Your task to perform on an android device: turn on sleep mode Image 0: 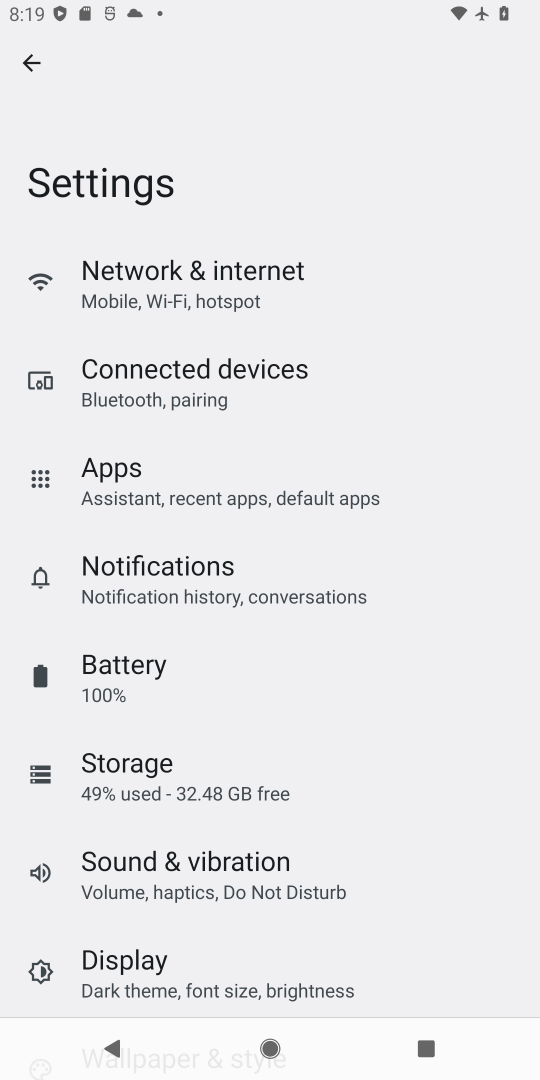
Step 0: click (151, 958)
Your task to perform on an android device: turn on sleep mode Image 1: 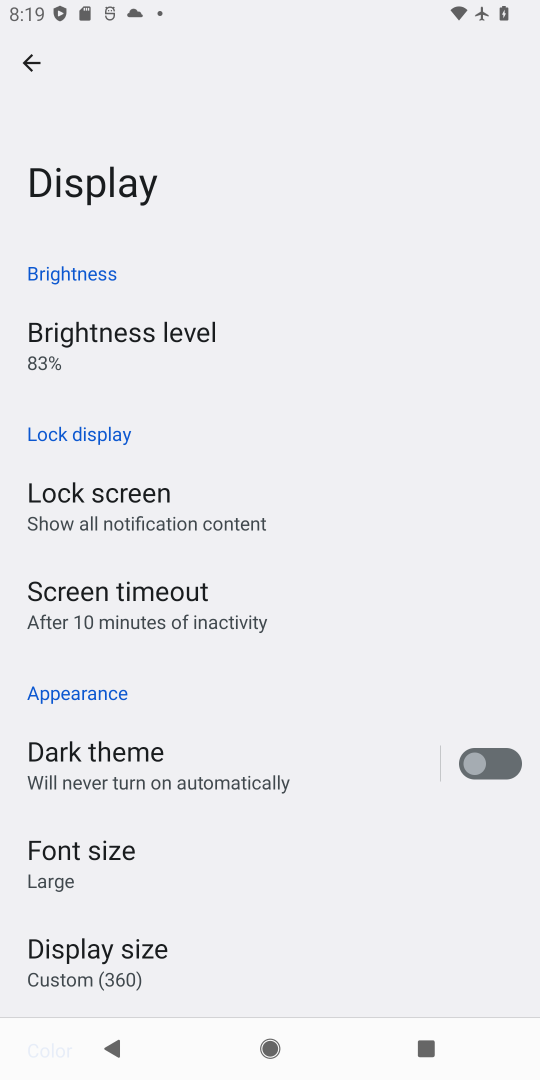
Step 1: click (271, 587)
Your task to perform on an android device: turn on sleep mode Image 2: 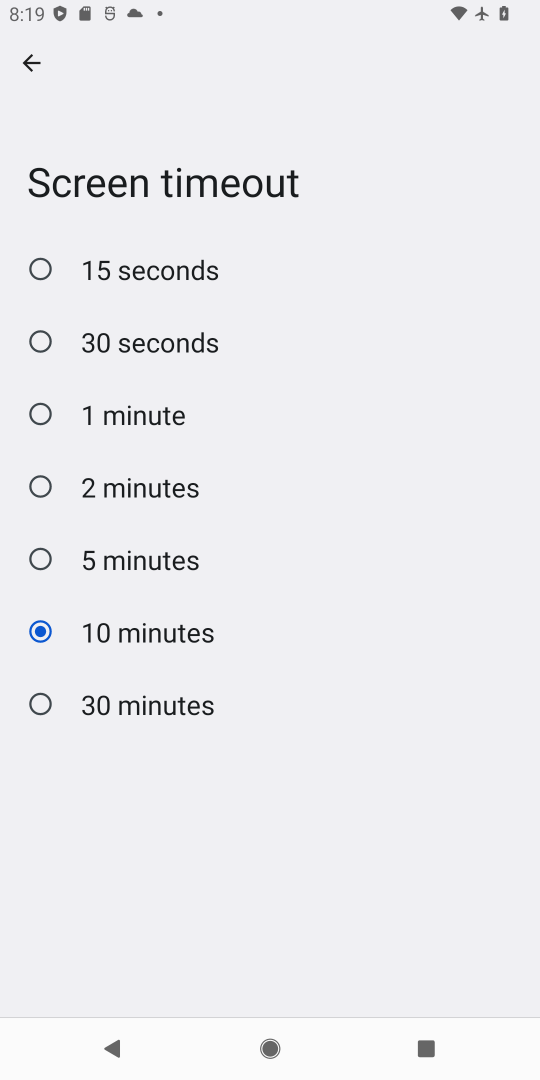
Step 2: task complete